Your task to perform on an android device: Search for "rayovac triple a" on amazon, select the first entry, and add it to the cart. Image 0: 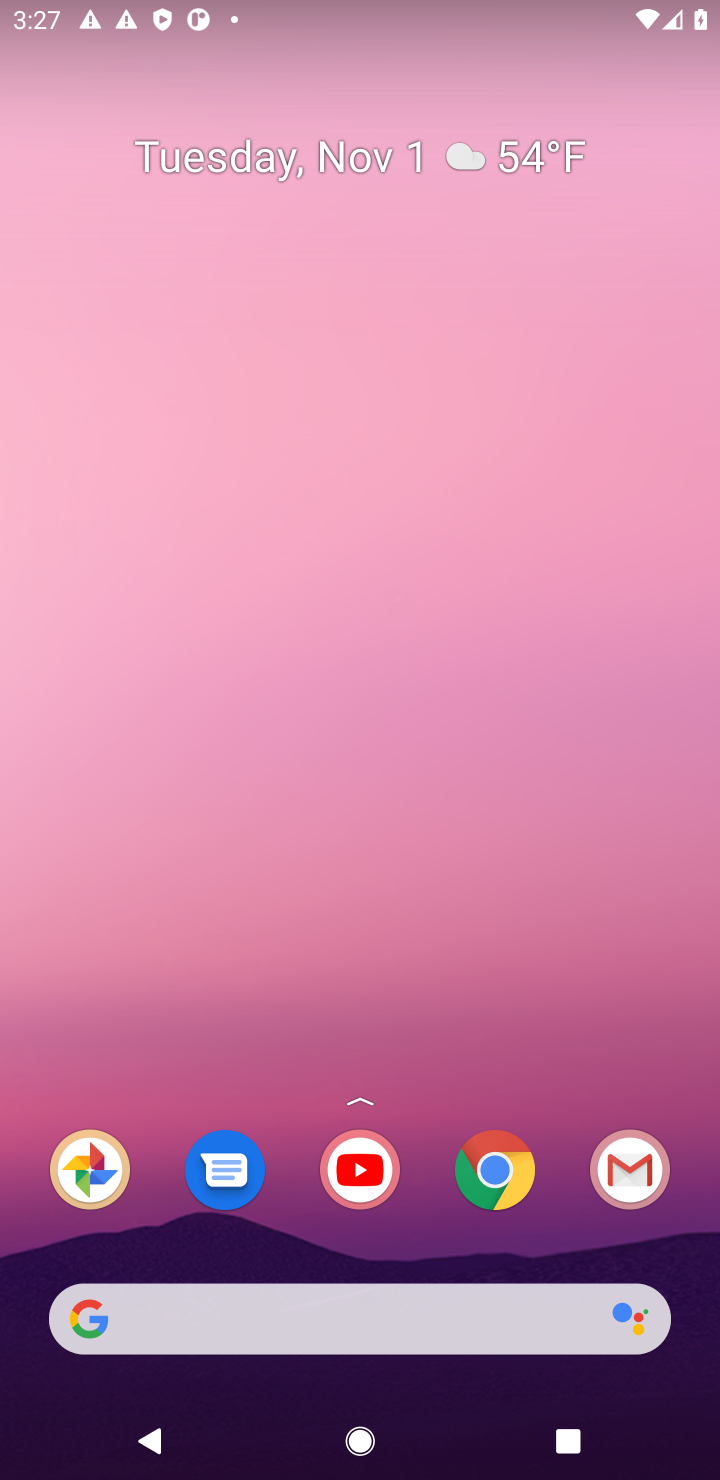
Step 0: drag from (448, 1389) to (212, 243)
Your task to perform on an android device: Search for "rayovac triple a" on amazon, select the first entry, and add it to the cart. Image 1: 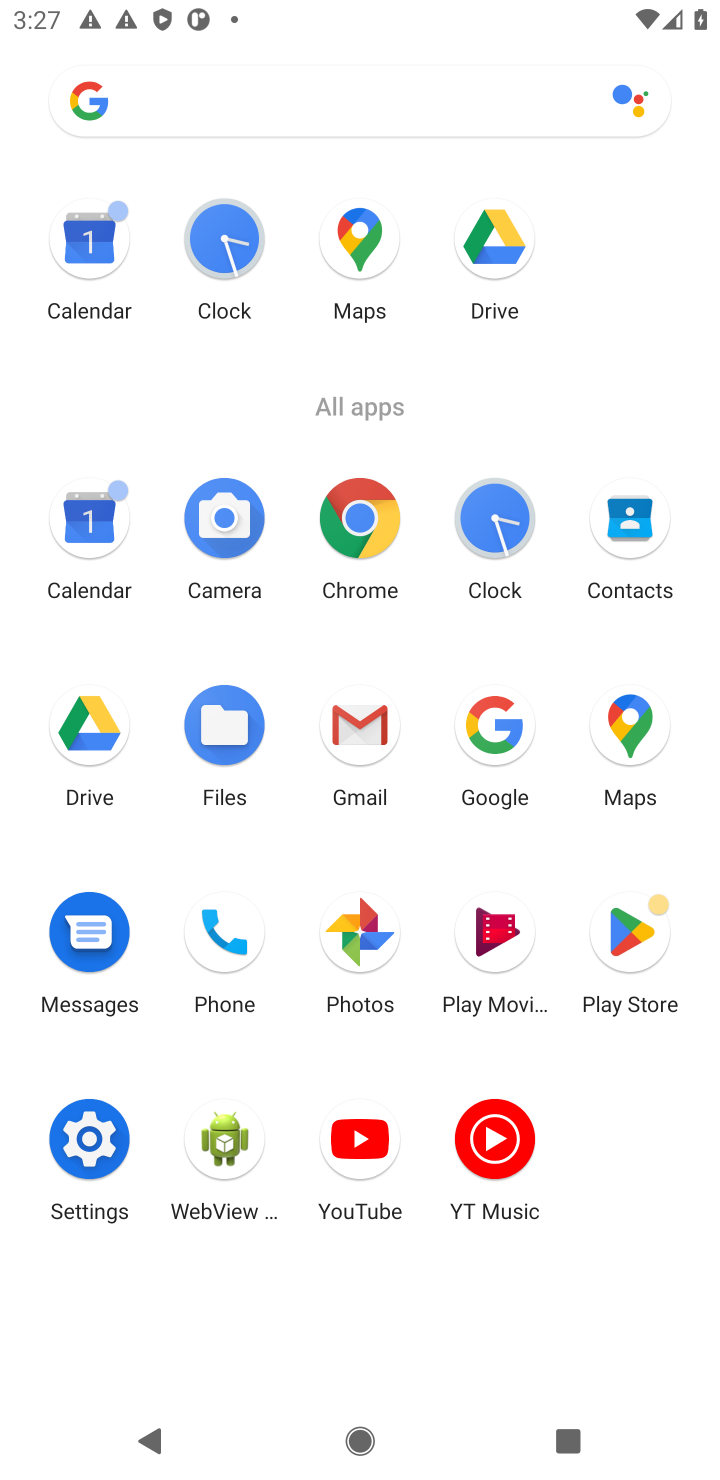
Step 1: click (357, 527)
Your task to perform on an android device: Search for "rayovac triple a" on amazon, select the first entry, and add it to the cart. Image 2: 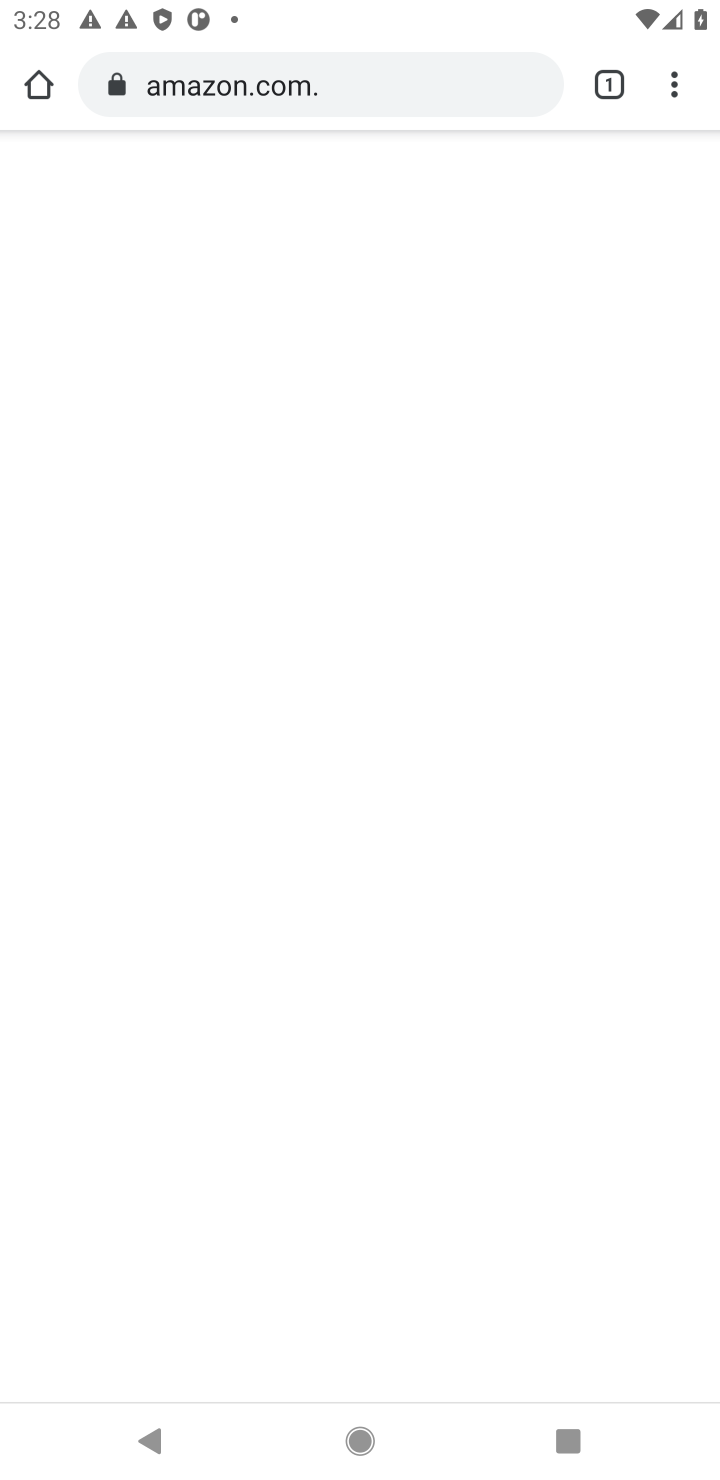
Step 2: click (387, 87)
Your task to perform on an android device: Search for "rayovac triple a" on amazon, select the first entry, and add it to the cart. Image 3: 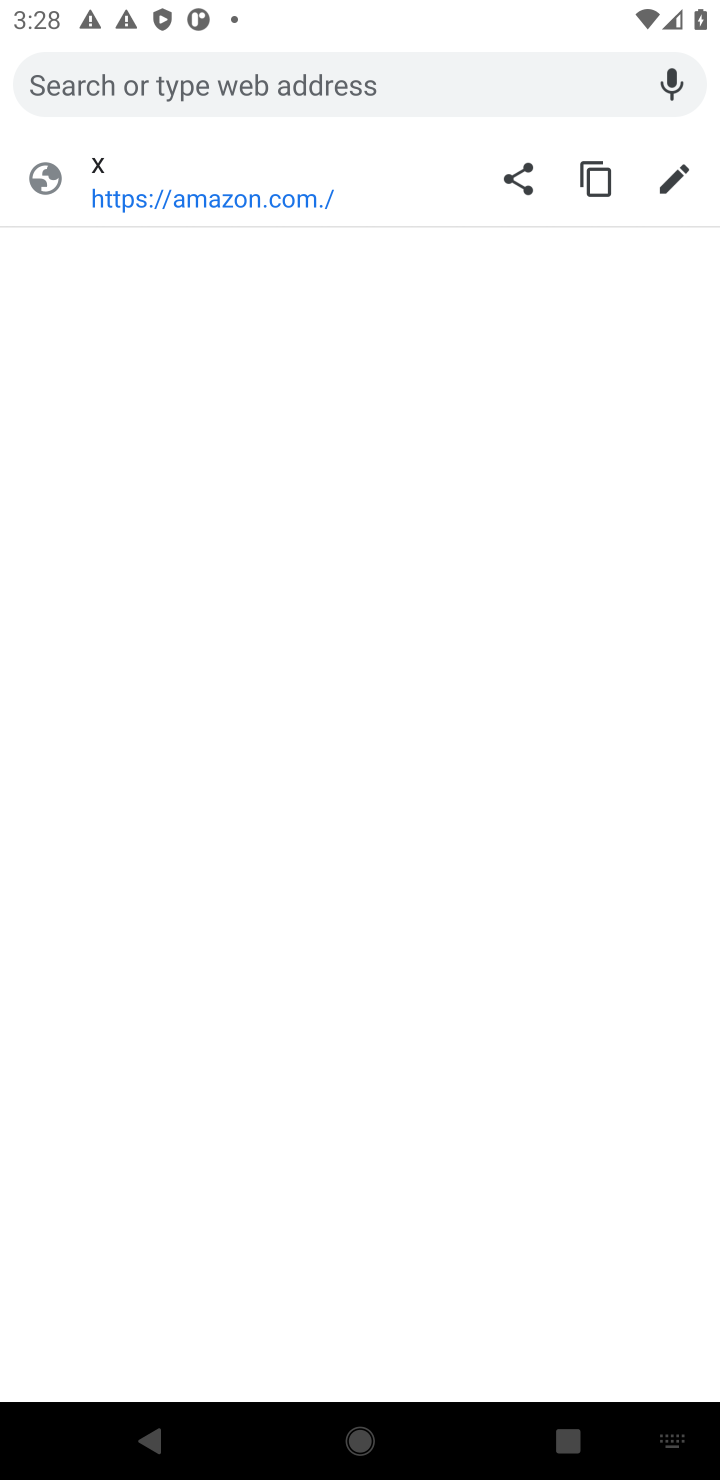
Step 3: type "amazon"
Your task to perform on an android device: Search for "rayovac triple a" on amazon, select the first entry, and add it to the cart. Image 4: 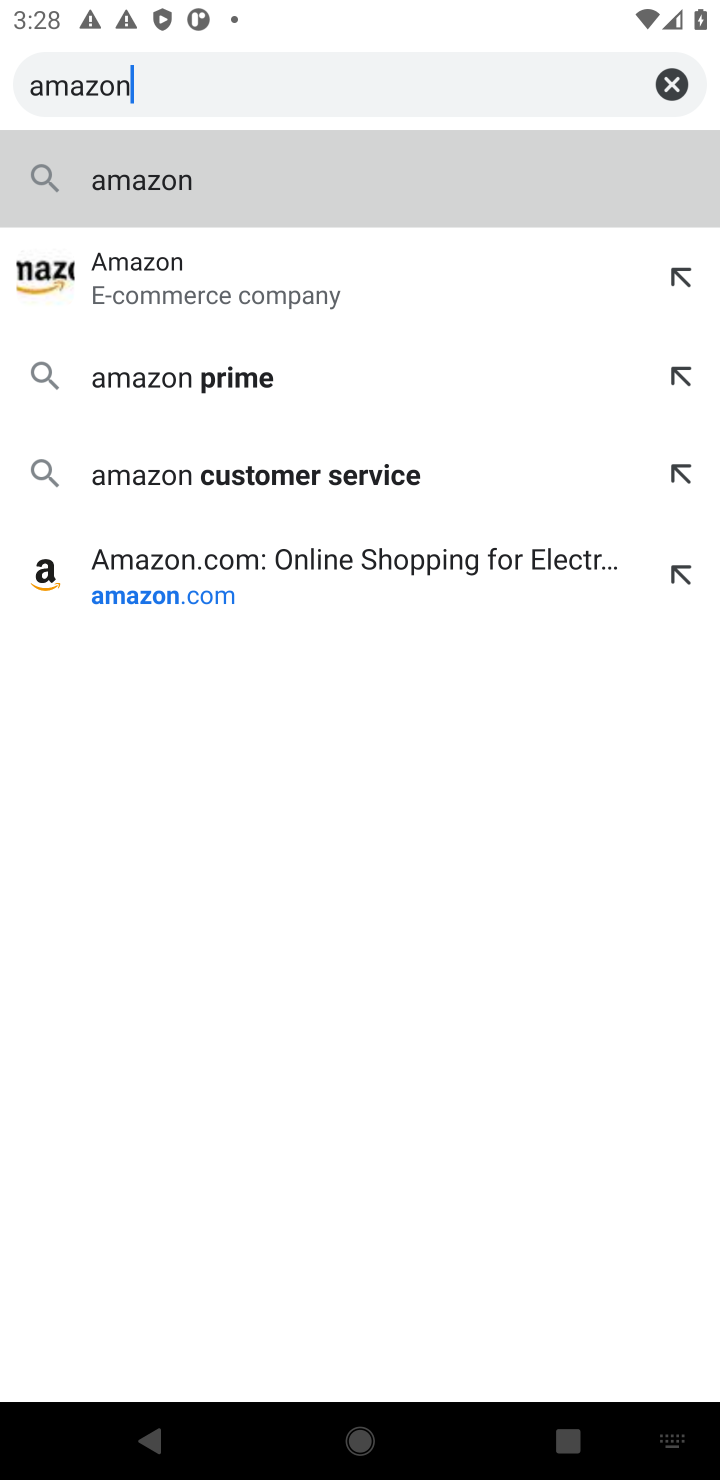
Step 4: click (131, 601)
Your task to perform on an android device: Search for "rayovac triple a" on amazon, select the first entry, and add it to the cart. Image 5: 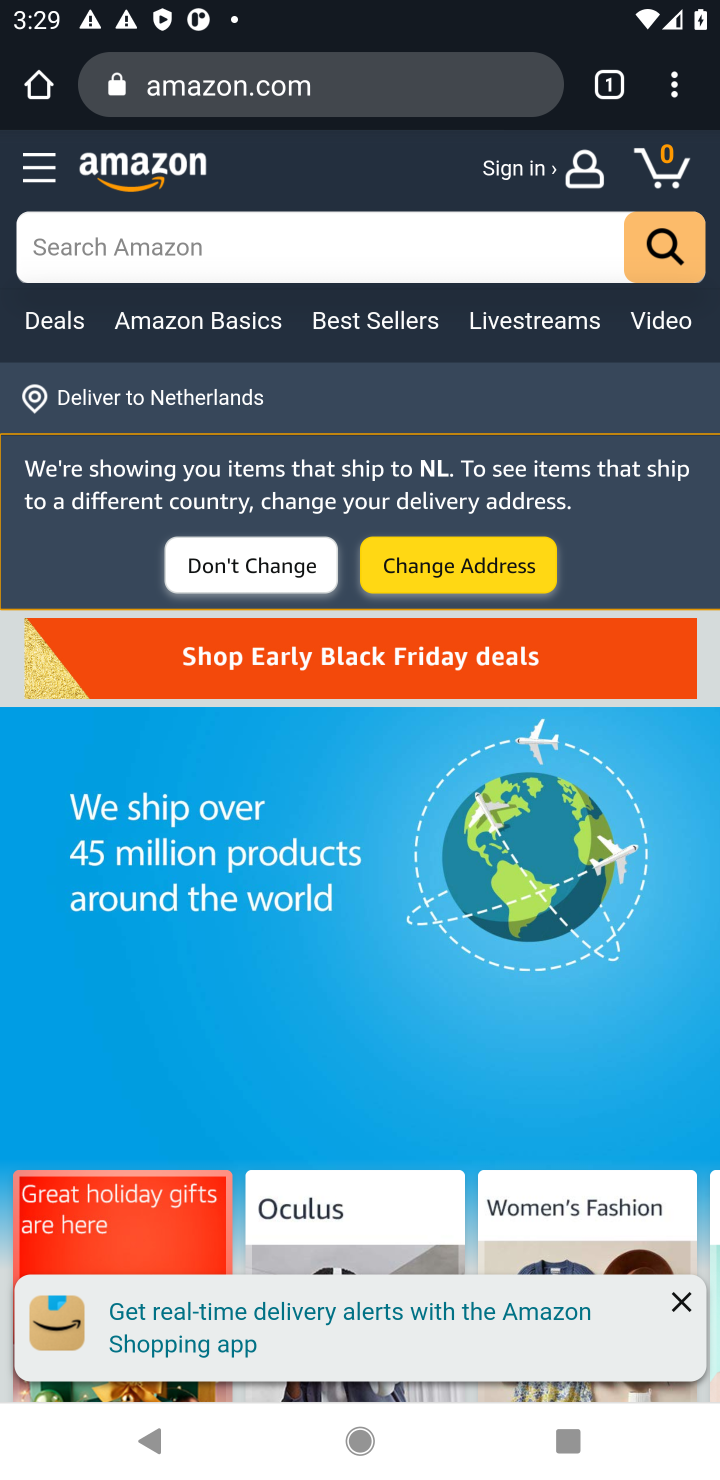
Step 5: click (176, 231)
Your task to perform on an android device: Search for "rayovac triple a" on amazon, select the first entry, and add it to the cart. Image 6: 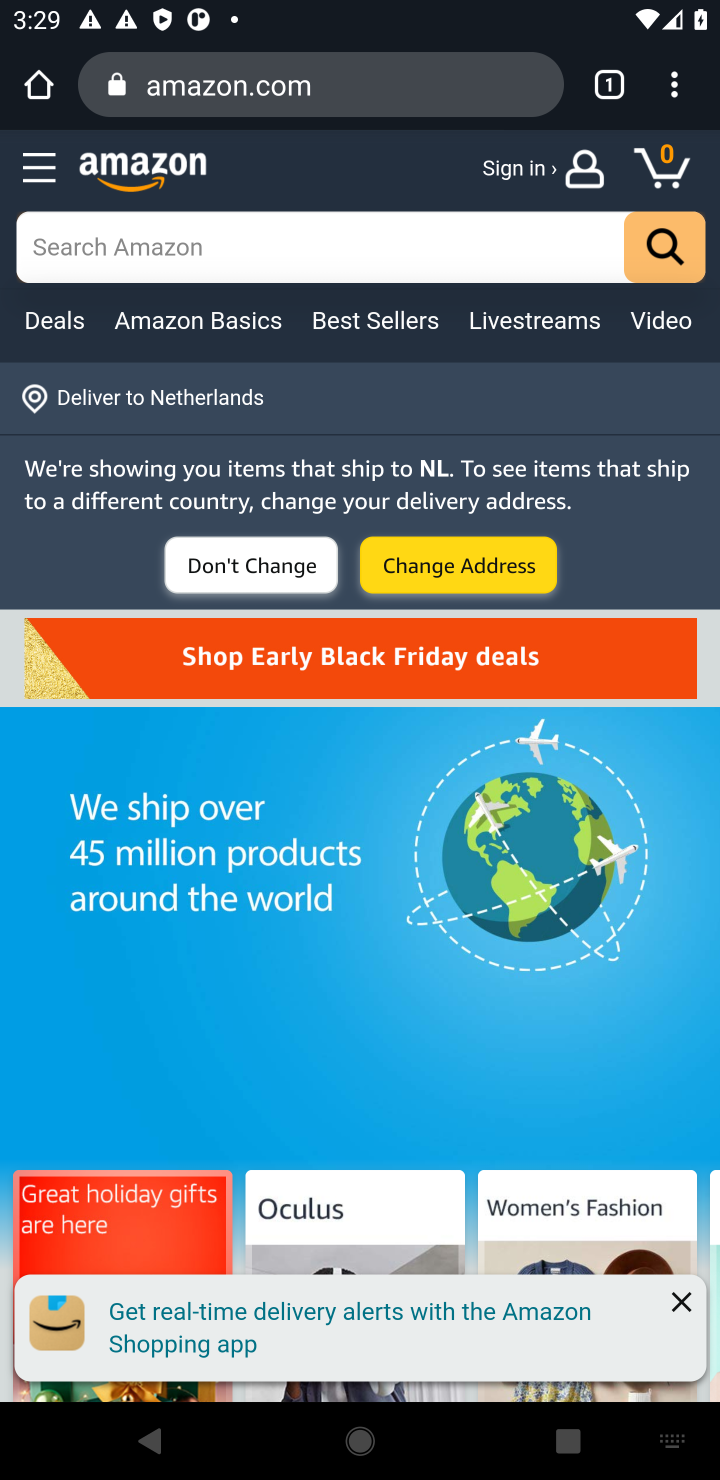
Step 6: type "rayovac triple a"
Your task to perform on an android device: Search for "rayovac triple a" on amazon, select the first entry, and add it to the cart. Image 7: 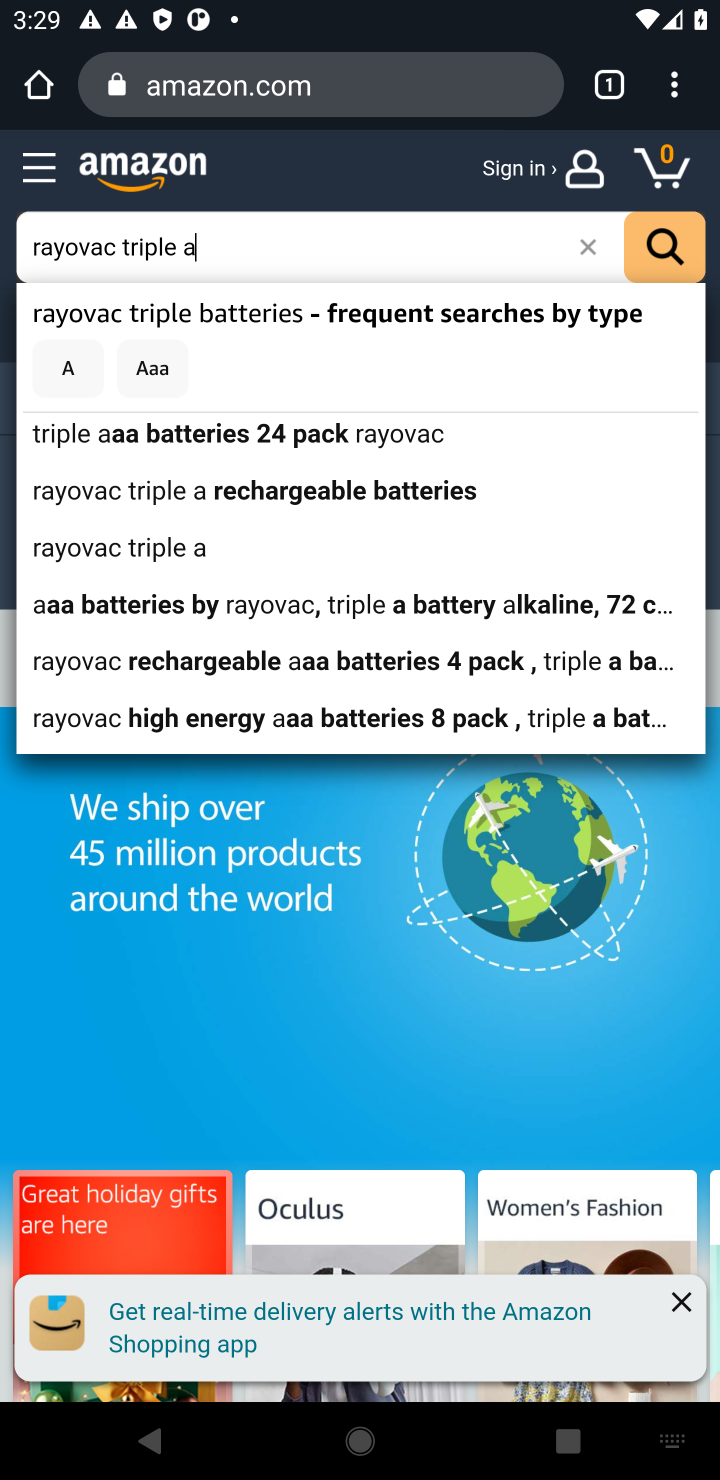
Step 7: click (652, 250)
Your task to perform on an android device: Search for "rayovac triple a" on amazon, select the first entry, and add it to the cart. Image 8: 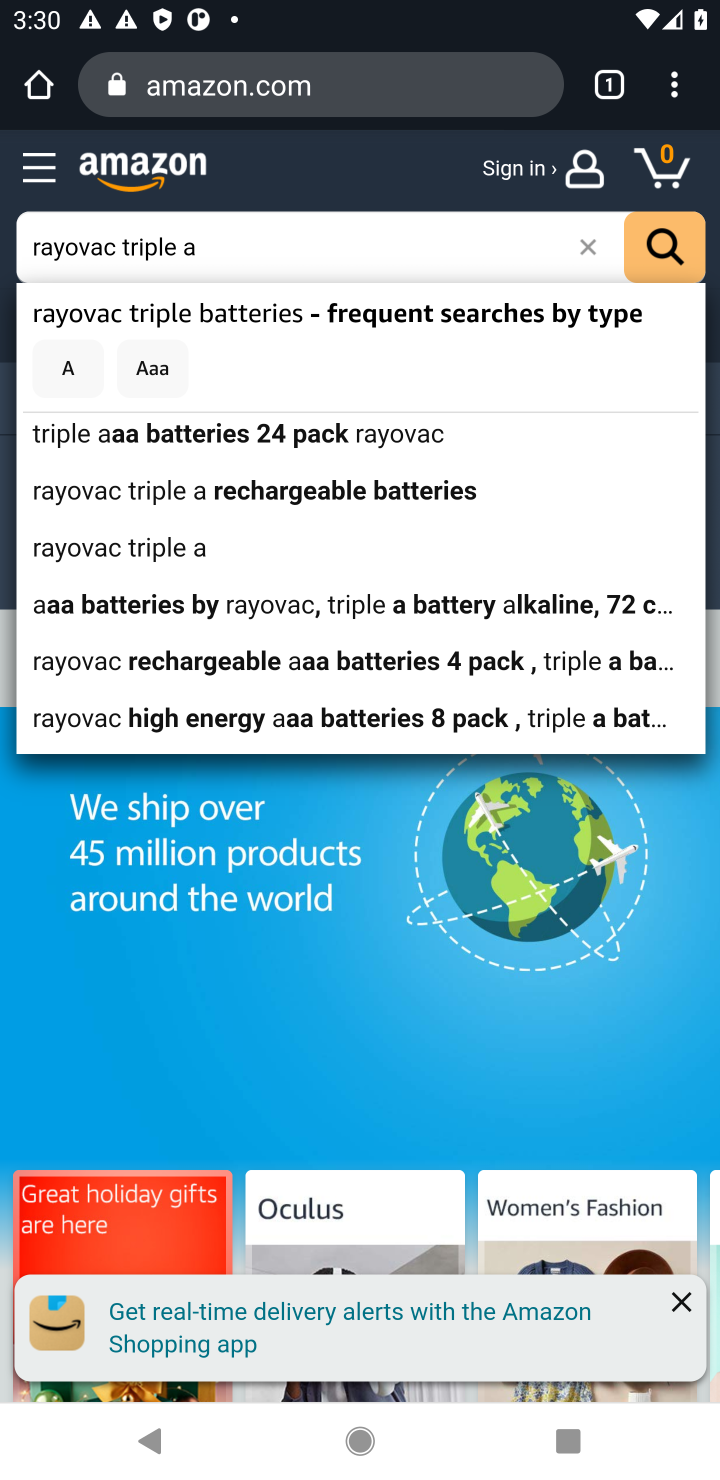
Step 8: click (668, 235)
Your task to perform on an android device: Search for "rayovac triple a" on amazon, select the first entry, and add it to the cart. Image 9: 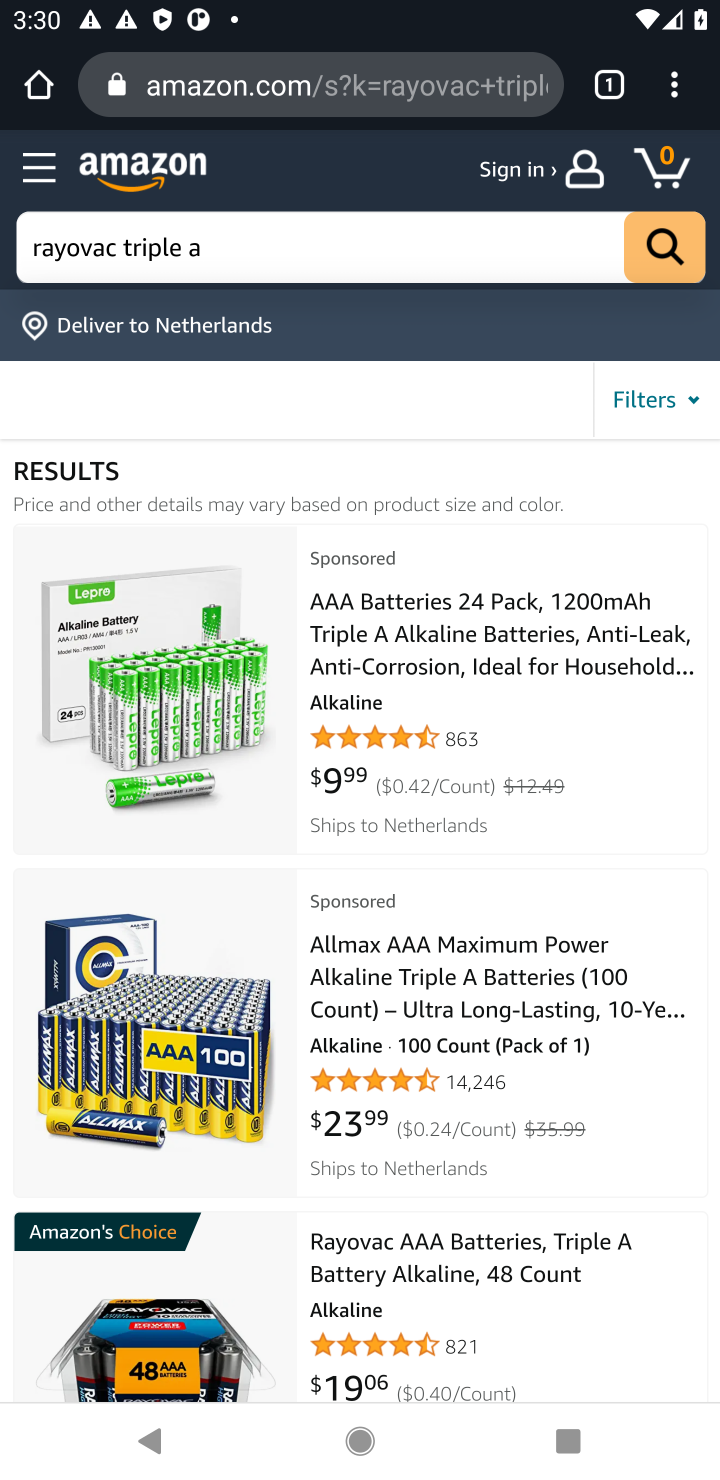
Step 9: click (262, 677)
Your task to perform on an android device: Search for "rayovac triple a" on amazon, select the first entry, and add it to the cart. Image 10: 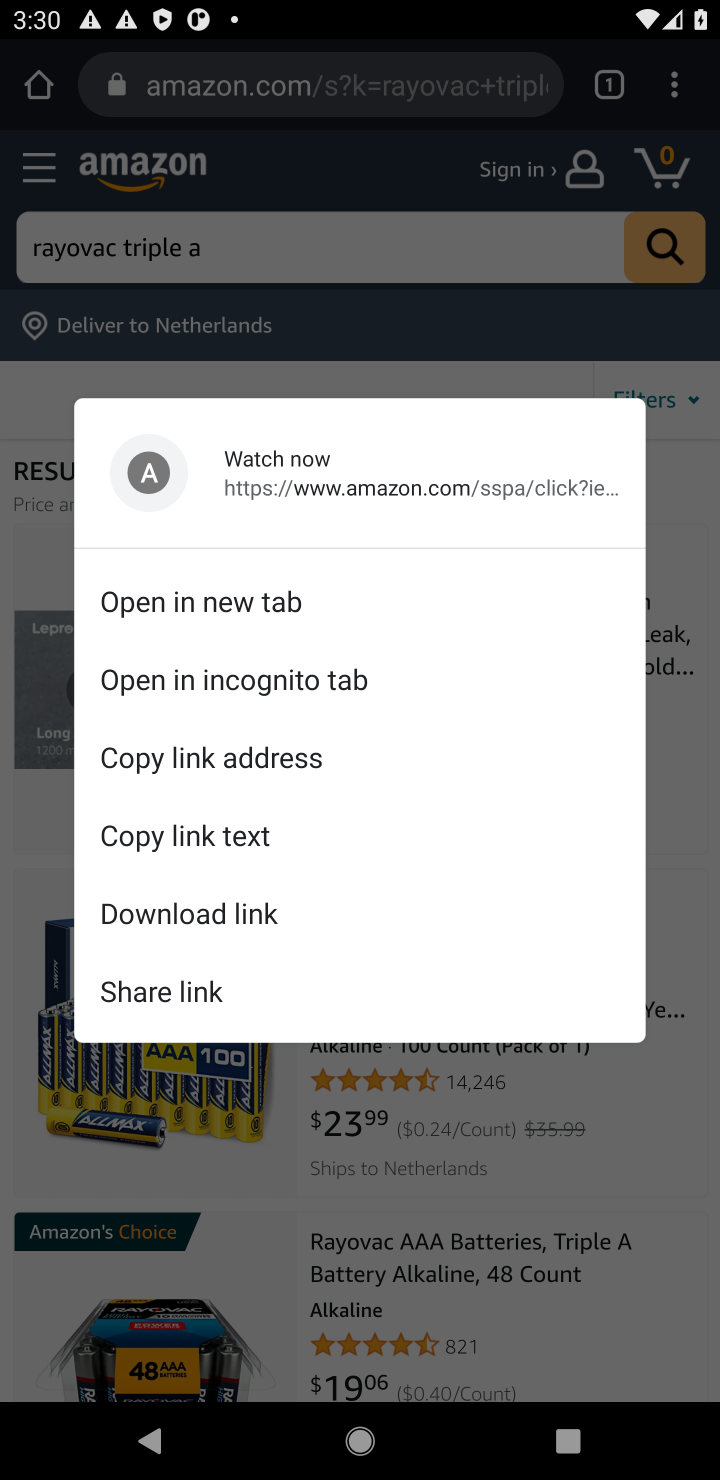
Step 10: click (677, 574)
Your task to perform on an android device: Search for "rayovac triple a" on amazon, select the first entry, and add it to the cart. Image 11: 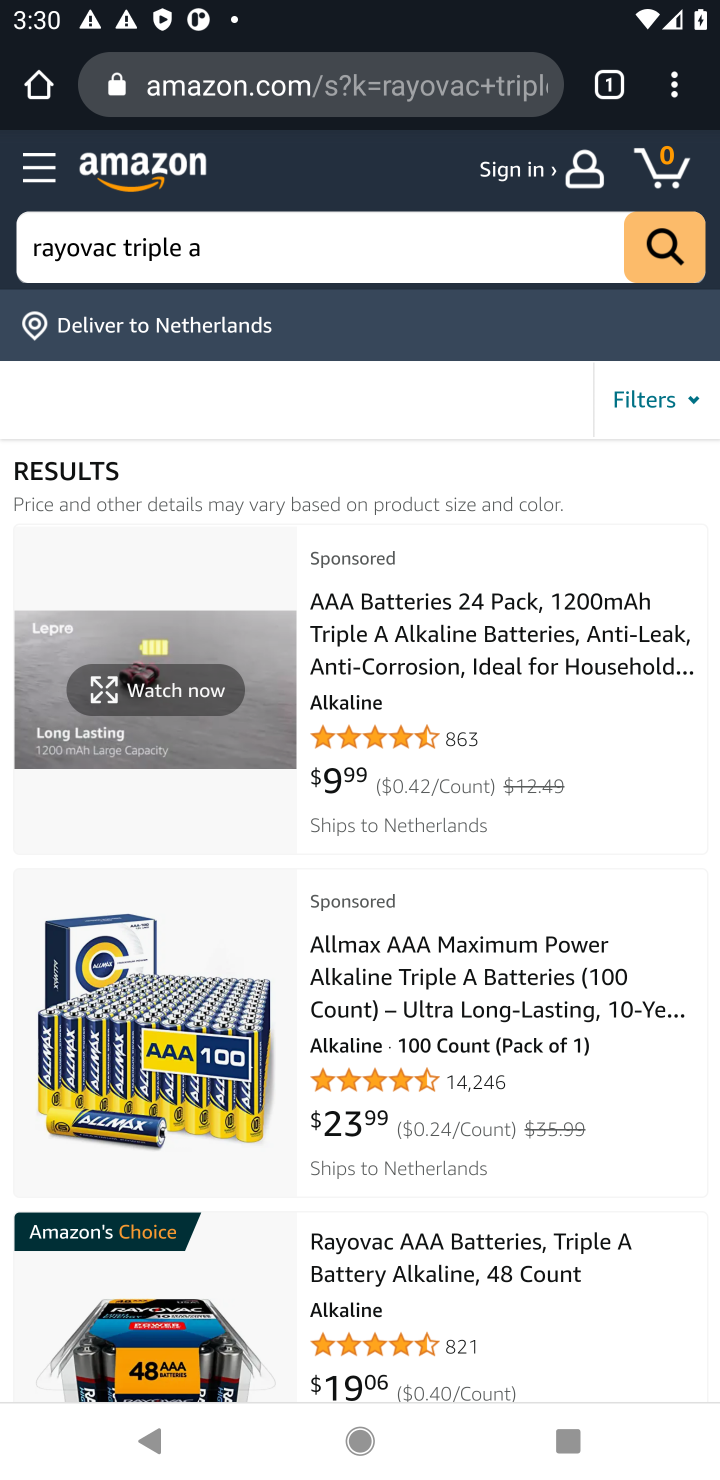
Step 11: click (423, 633)
Your task to perform on an android device: Search for "rayovac triple a" on amazon, select the first entry, and add it to the cart. Image 12: 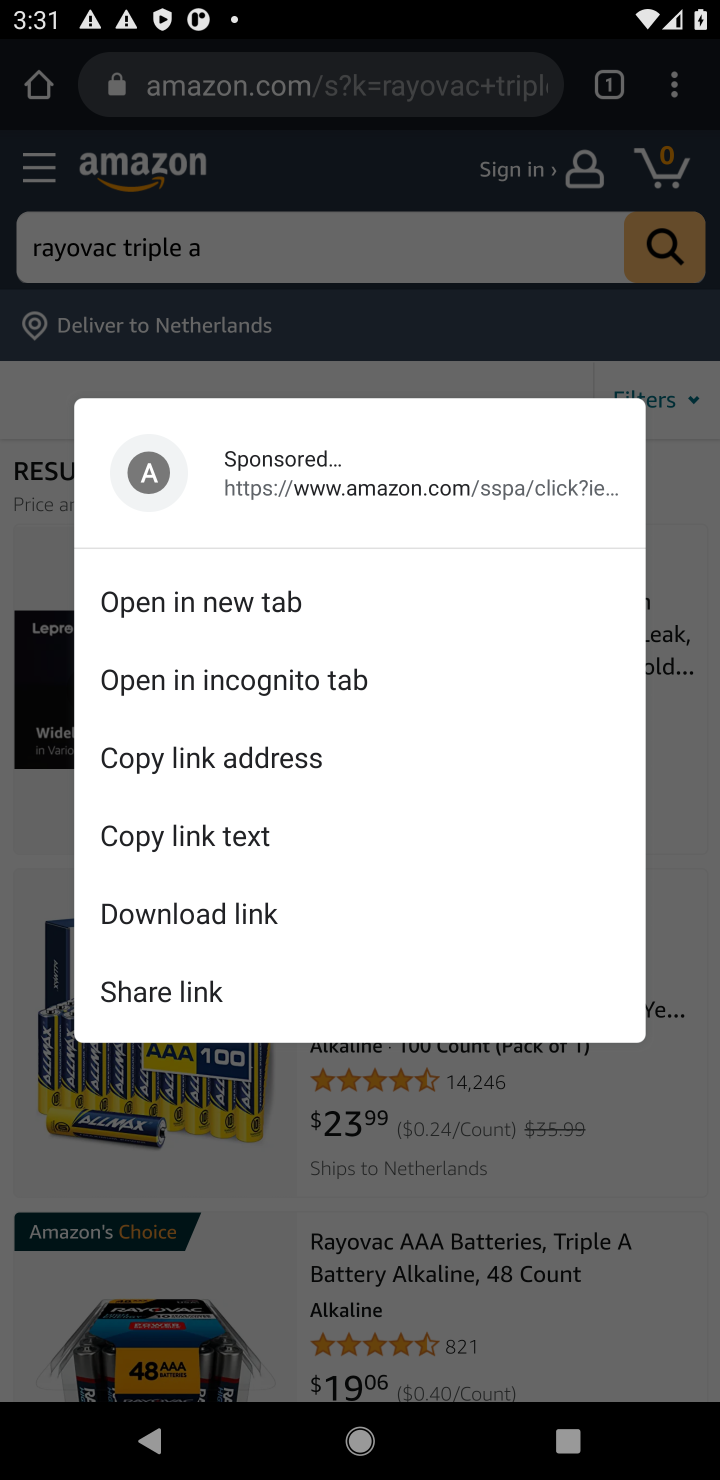
Step 12: click (703, 746)
Your task to perform on an android device: Search for "rayovac triple a" on amazon, select the first entry, and add it to the cart. Image 13: 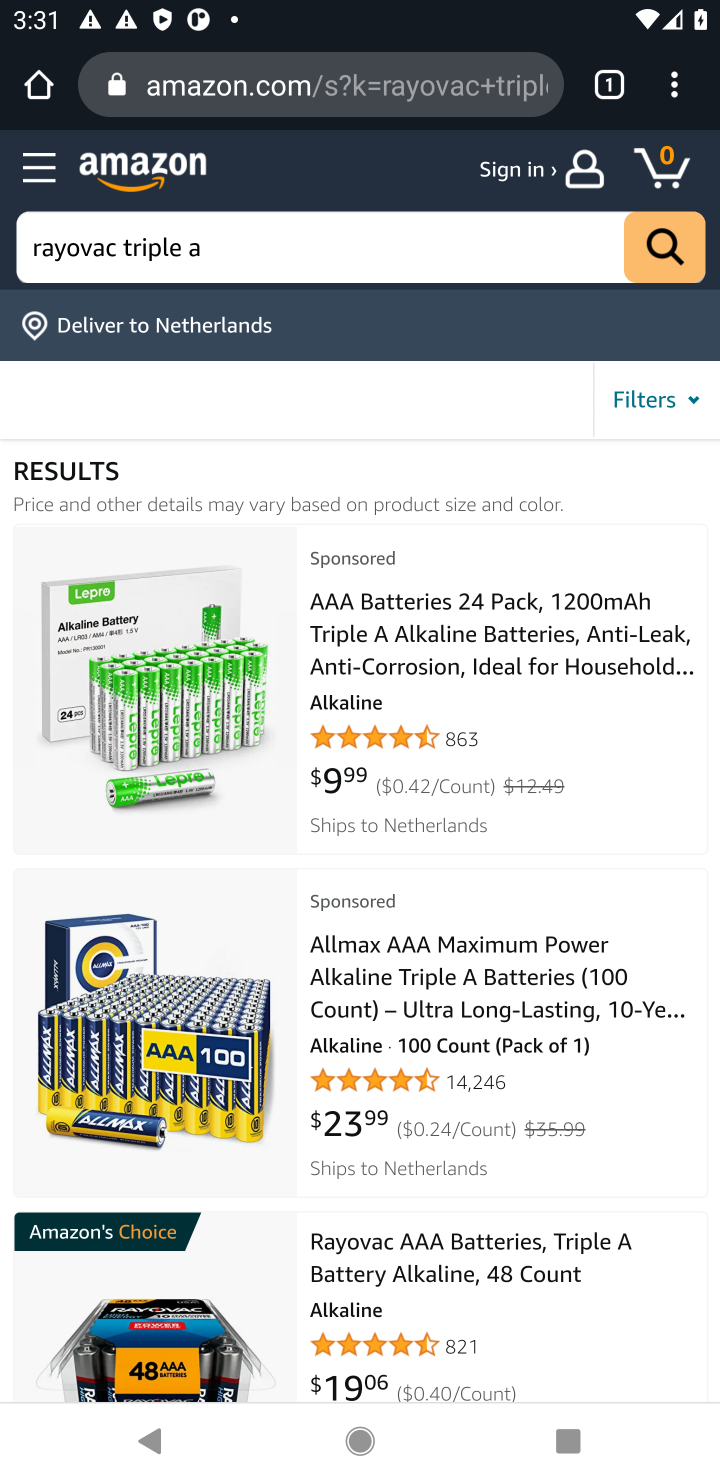
Step 13: click (425, 979)
Your task to perform on an android device: Search for "rayovac triple a" on amazon, select the first entry, and add it to the cart. Image 14: 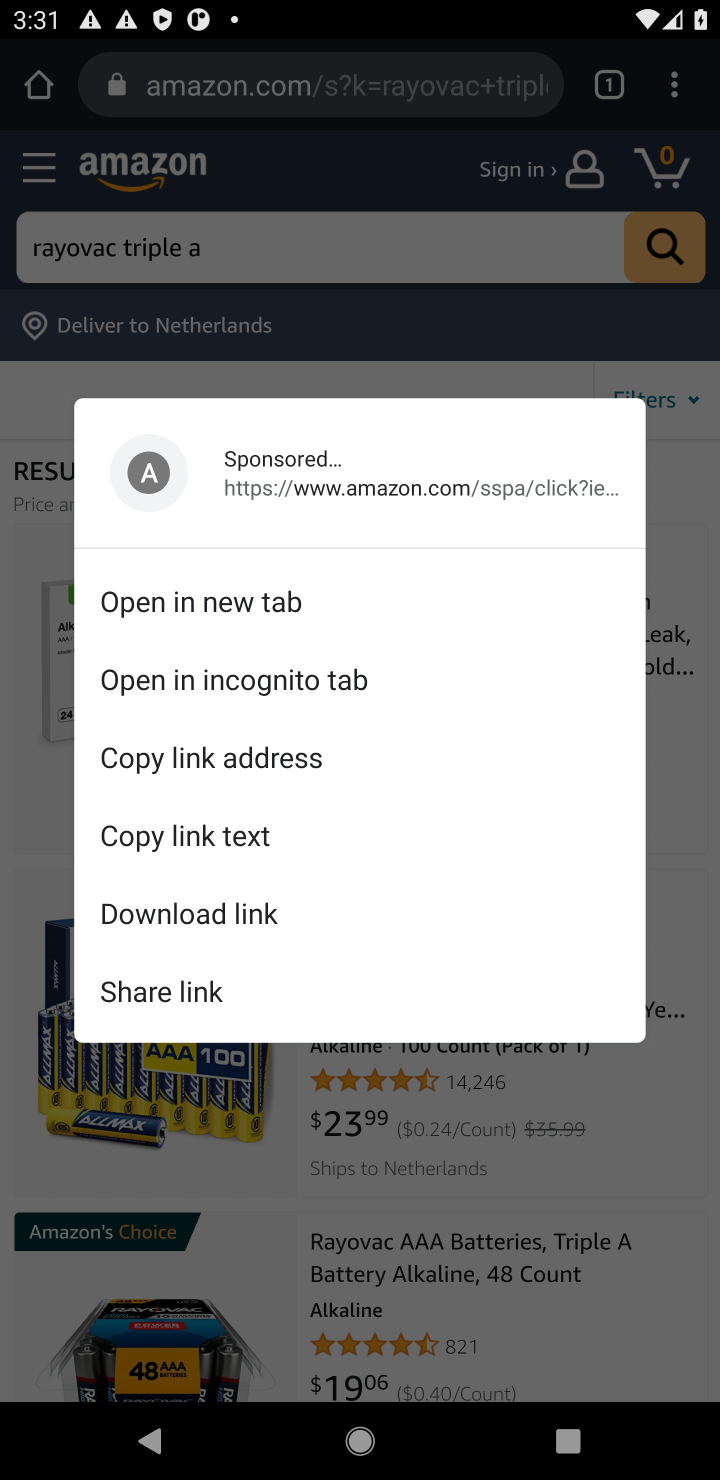
Step 14: click (658, 469)
Your task to perform on an android device: Search for "rayovac triple a" on amazon, select the first entry, and add it to the cart. Image 15: 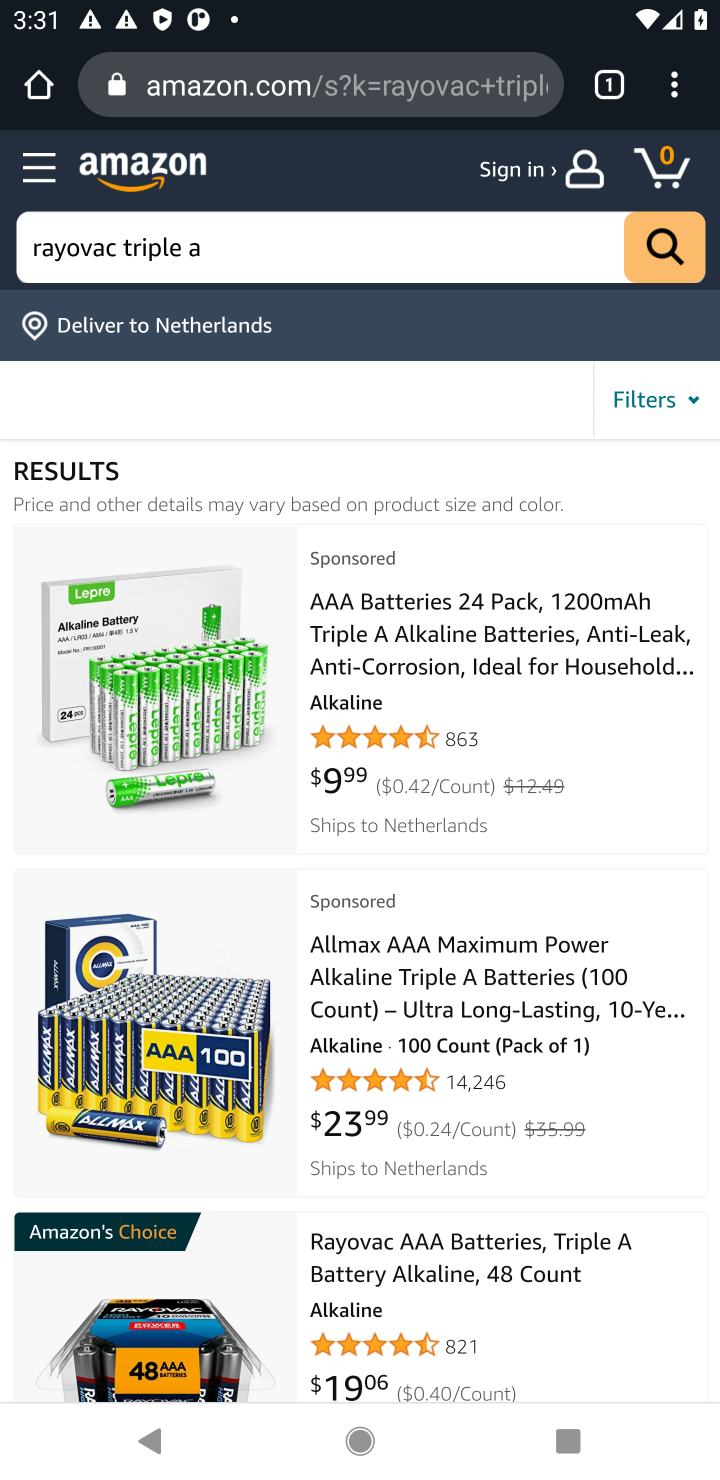
Step 15: click (429, 653)
Your task to perform on an android device: Search for "rayovac triple a" on amazon, select the first entry, and add it to the cart. Image 16: 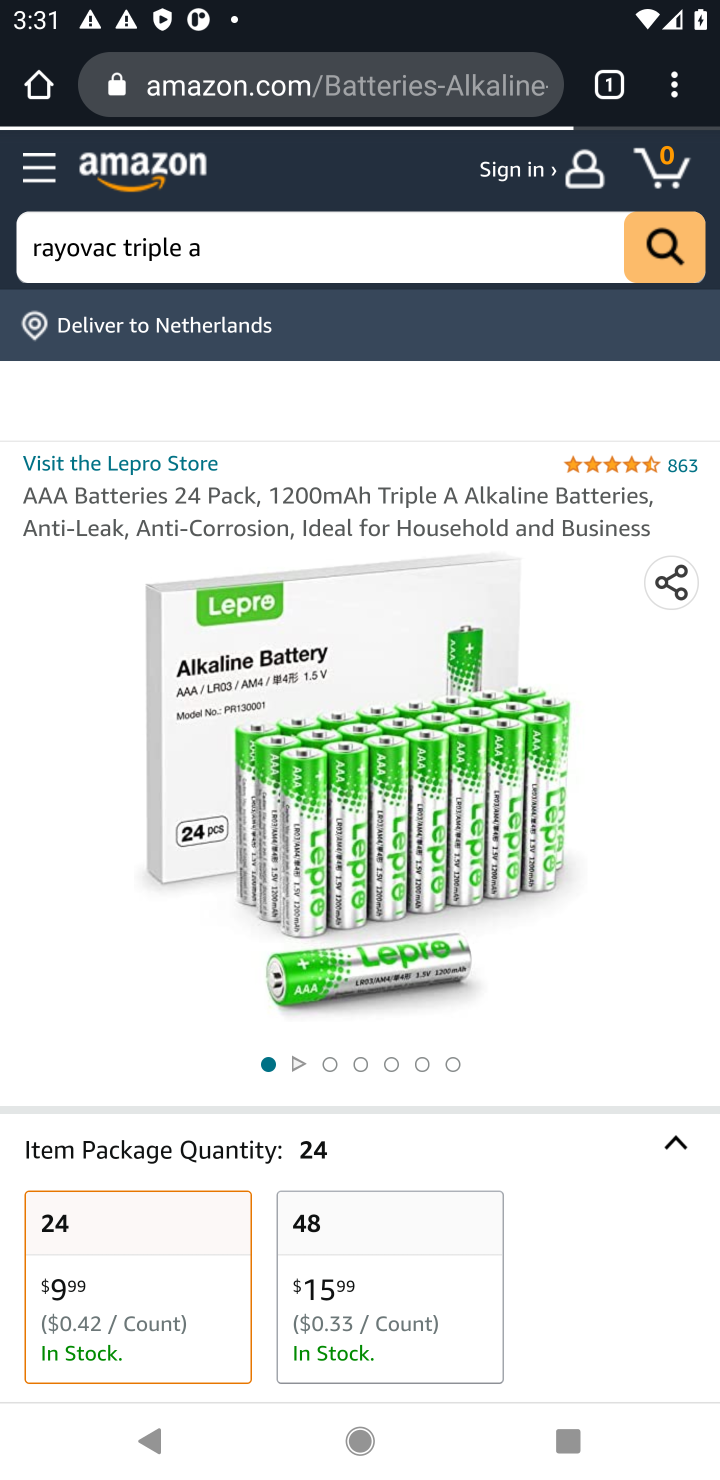
Step 16: drag from (480, 1136) to (506, 382)
Your task to perform on an android device: Search for "rayovac triple a" on amazon, select the first entry, and add it to the cart. Image 17: 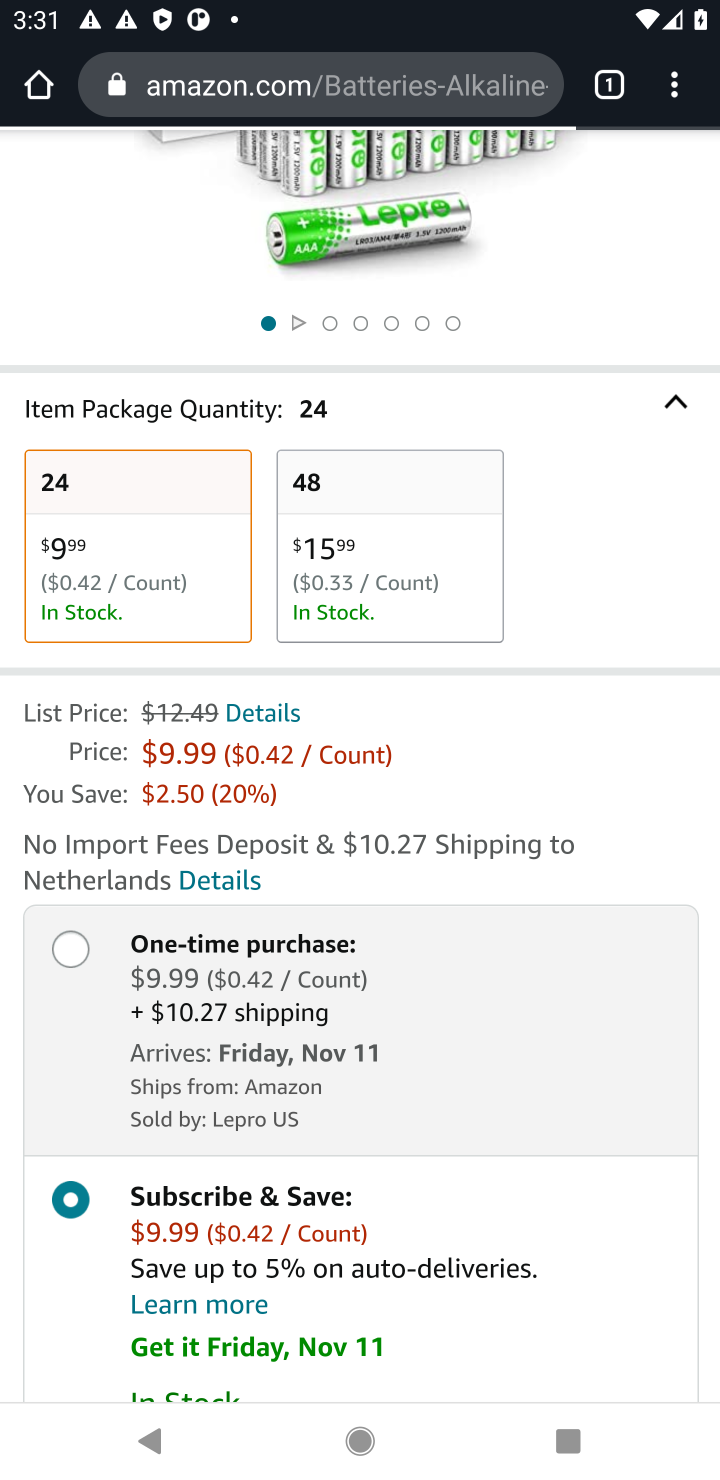
Step 17: drag from (472, 1077) to (495, 353)
Your task to perform on an android device: Search for "rayovac triple a" on amazon, select the first entry, and add it to the cart. Image 18: 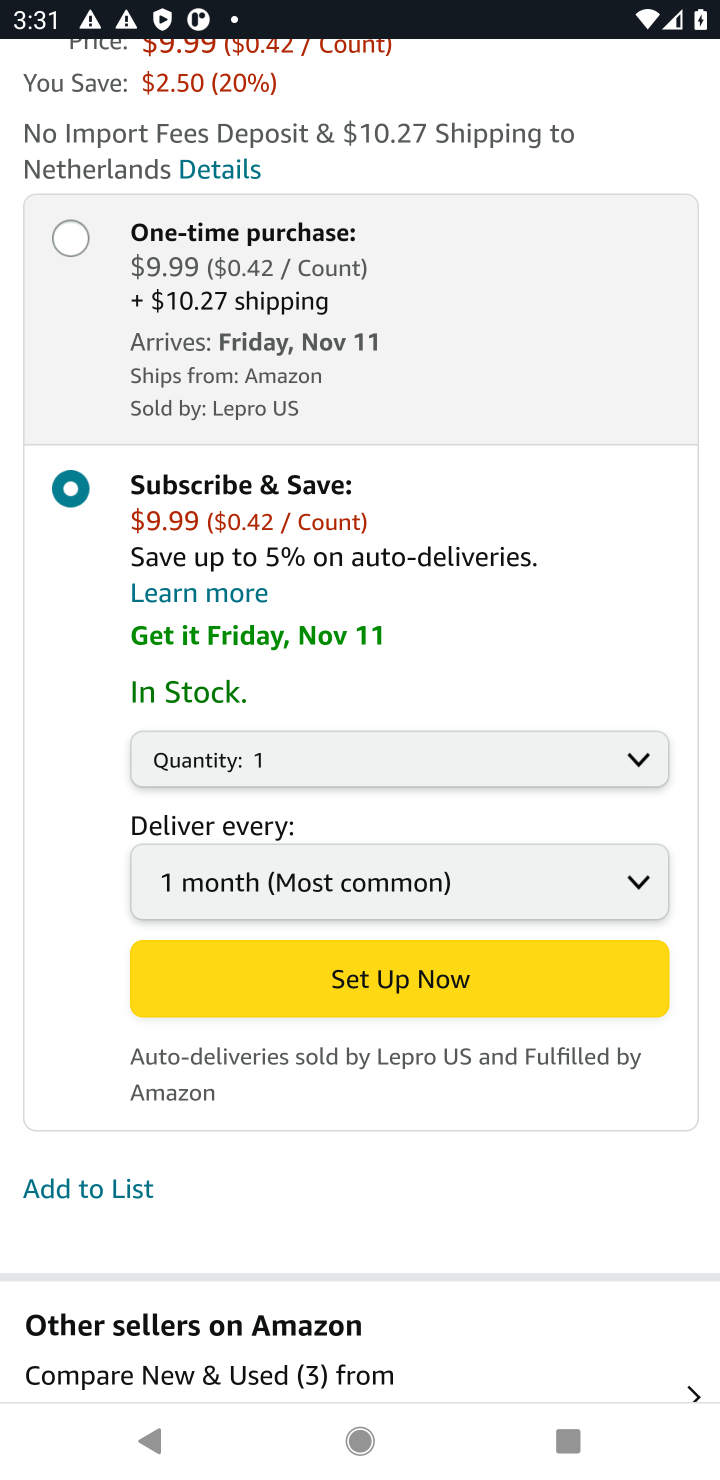
Step 18: drag from (491, 1082) to (613, 374)
Your task to perform on an android device: Search for "rayovac triple a" on amazon, select the first entry, and add it to the cart. Image 19: 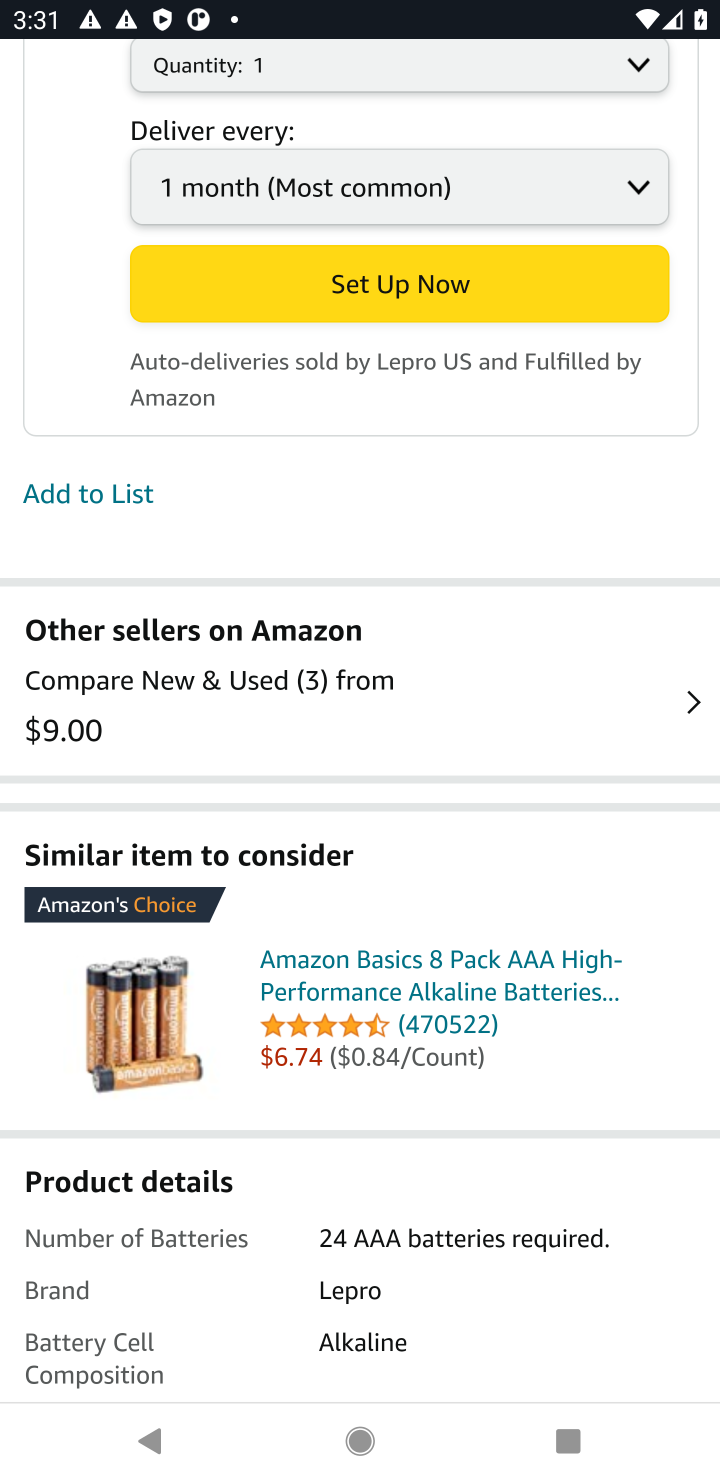
Step 19: drag from (554, 649) to (561, 282)
Your task to perform on an android device: Search for "rayovac triple a" on amazon, select the first entry, and add it to the cart. Image 20: 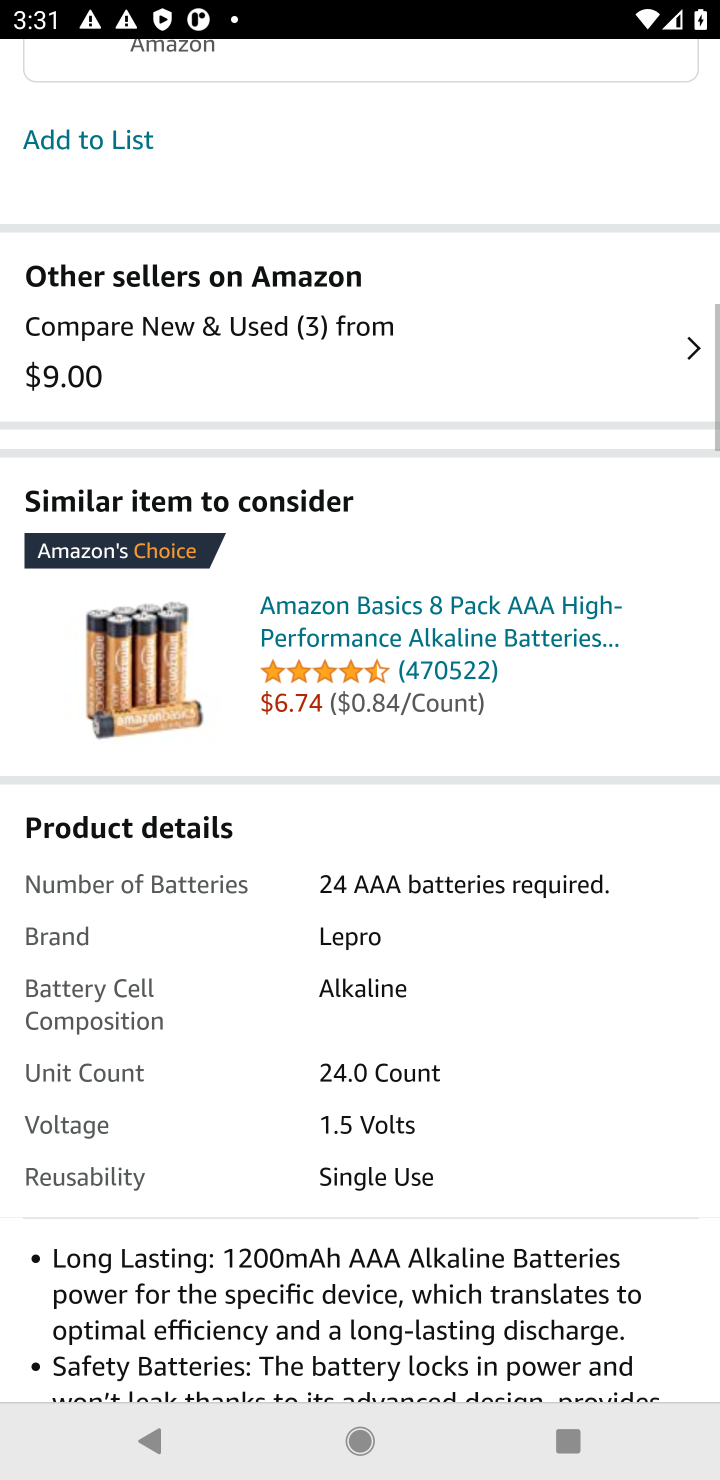
Step 20: drag from (531, 1152) to (620, 463)
Your task to perform on an android device: Search for "rayovac triple a" on amazon, select the first entry, and add it to the cart. Image 21: 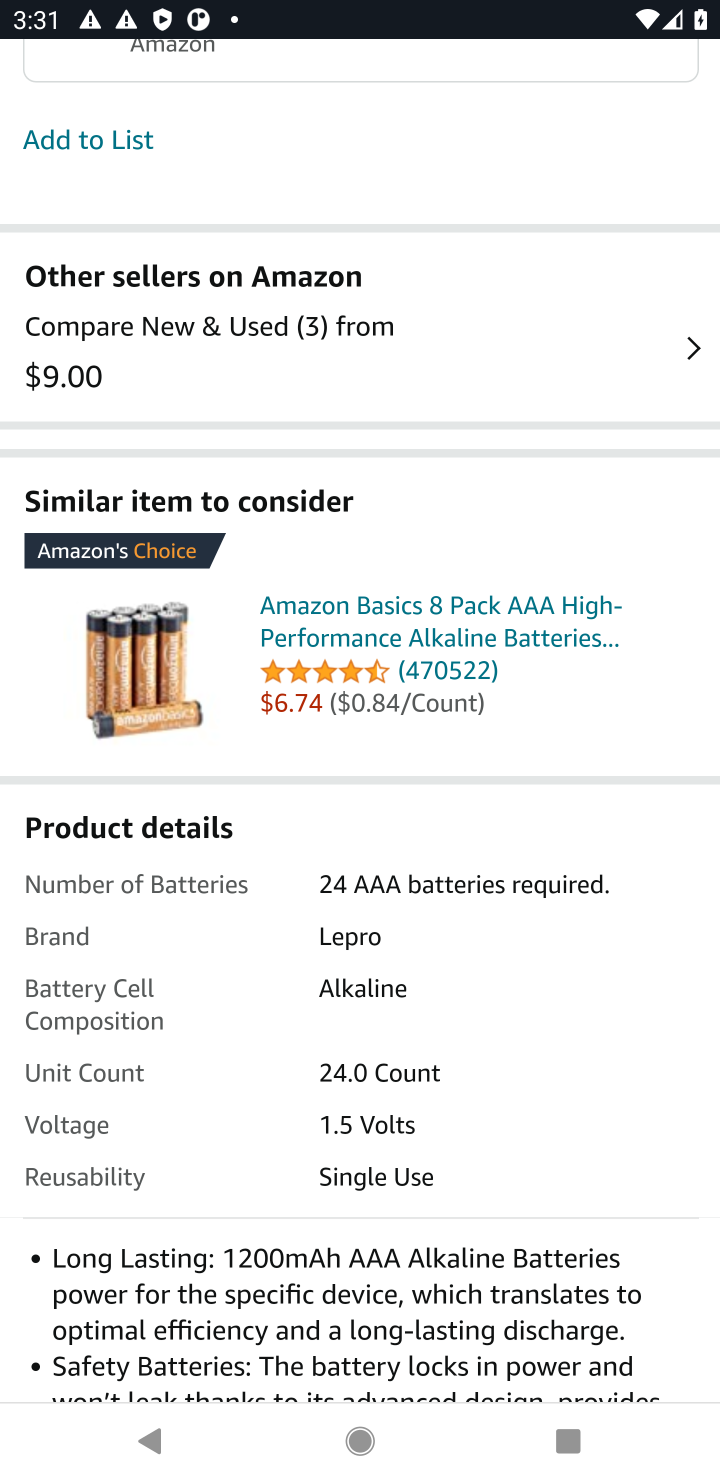
Step 21: click (636, 248)
Your task to perform on an android device: Search for "rayovac triple a" on amazon, select the first entry, and add it to the cart. Image 22: 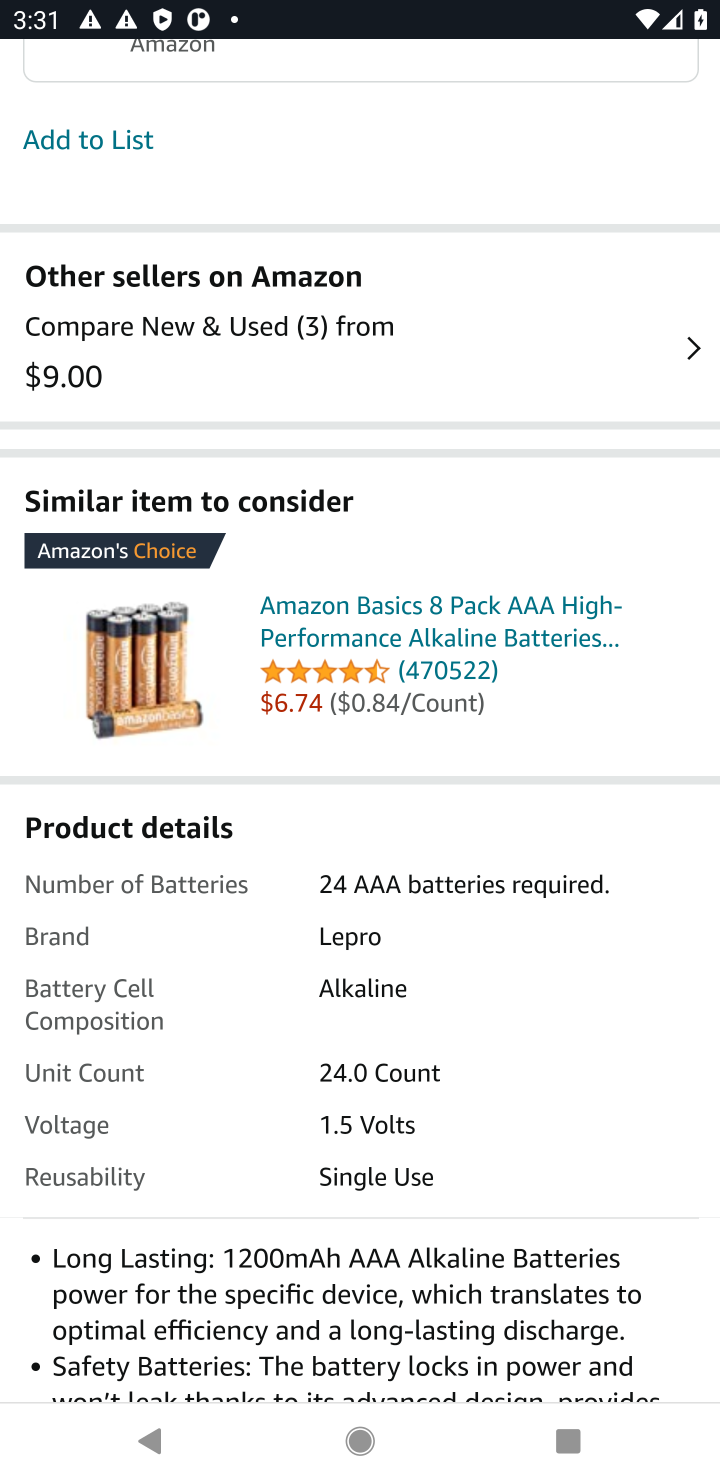
Step 22: task complete